Your task to perform on an android device: Open Youtube and go to "Your channel" Image 0: 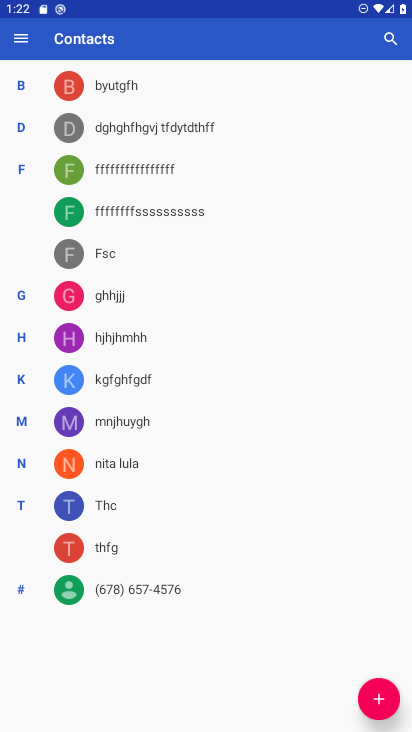
Step 0: press home button
Your task to perform on an android device: Open Youtube and go to "Your channel" Image 1: 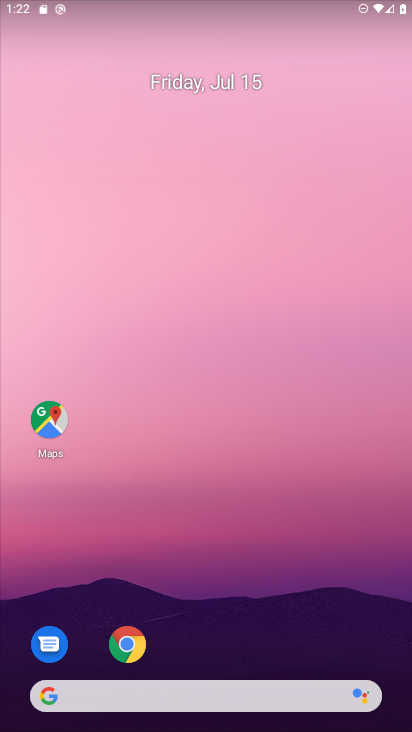
Step 1: drag from (400, 632) to (338, 102)
Your task to perform on an android device: Open Youtube and go to "Your channel" Image 2: 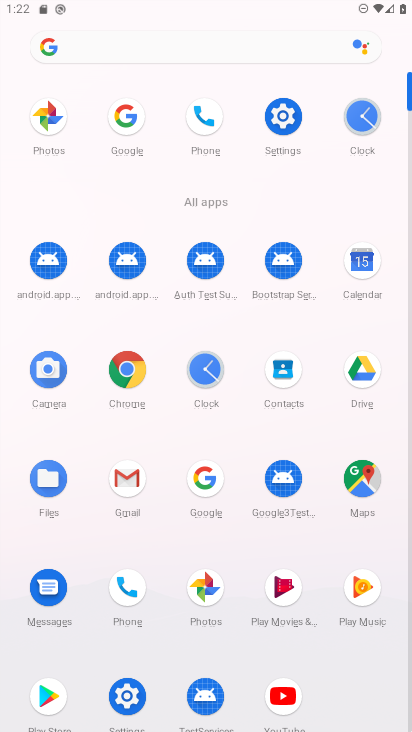
Step 2: click (278, 682)
Your task to perform on an android device: Open Youtube and go to "Your channel" Image 3: 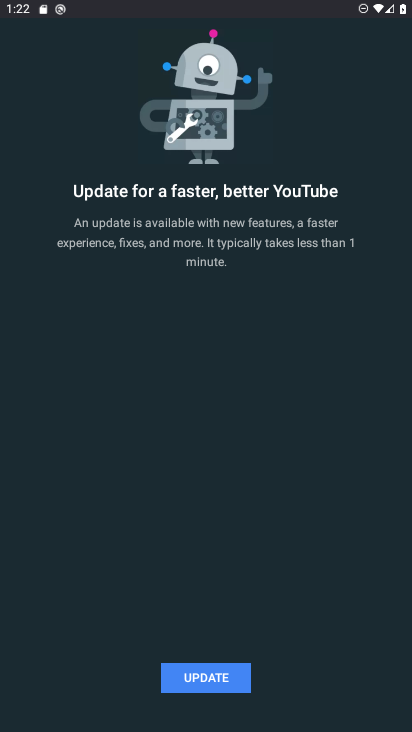
Step 3: click (202, 671)
Your task to perform on an android device: Open Youtube and go to "Your channel" Image 4: 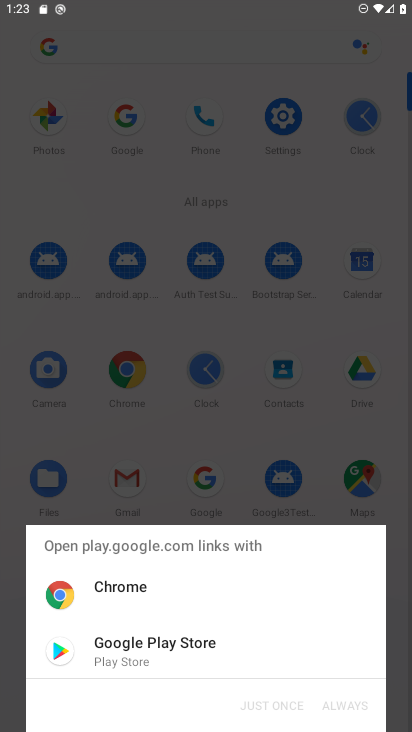
Step 4: click (123, 648)
Your task to perform on an android device: Open Youtube and go to "Your channel" Image 5: 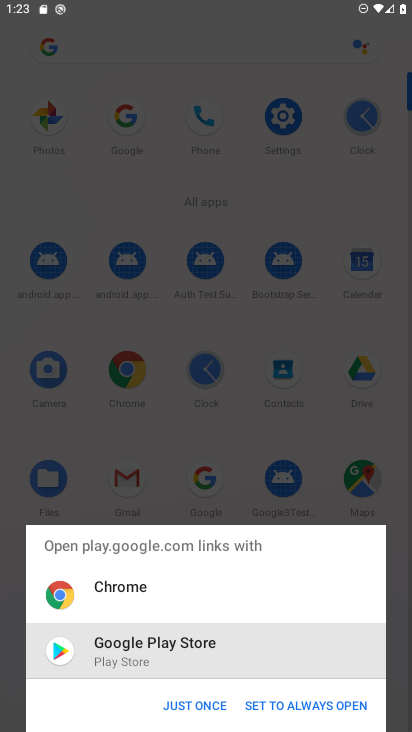
Step 5: click (185, 702)
Your task to perform on an android device: Open Youtube and go to "Your channel" Image 6: 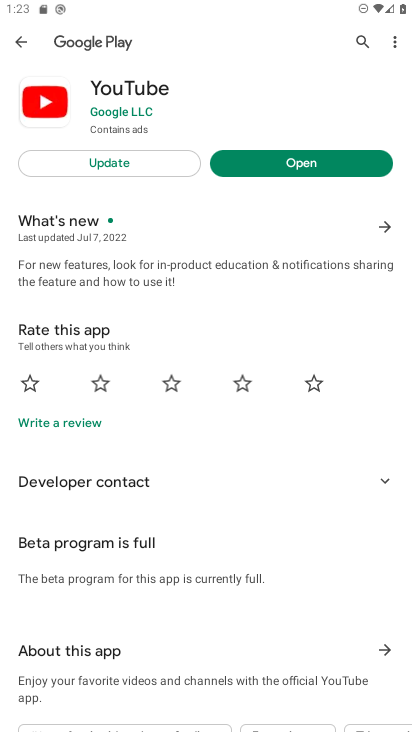
Step 6: click (150, 166)
Your task to perform on an android device: Open Youtube and go to "Your channel" Image 7: 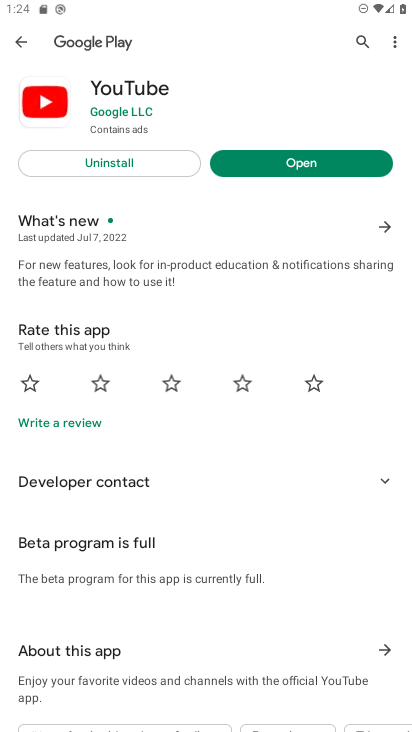
Step 7: click (319, 161)
Your task to perform on an android device: Open Youtube and go to "Your channel" Image 8: 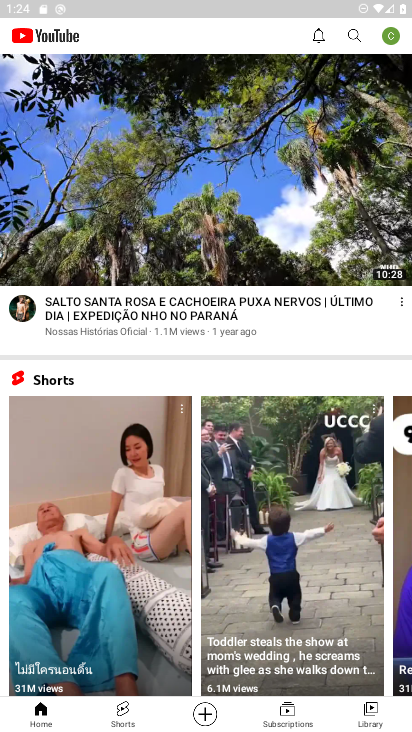
Step 8: task complete